Your task to perform on an android device: open wifi settings Image 0: 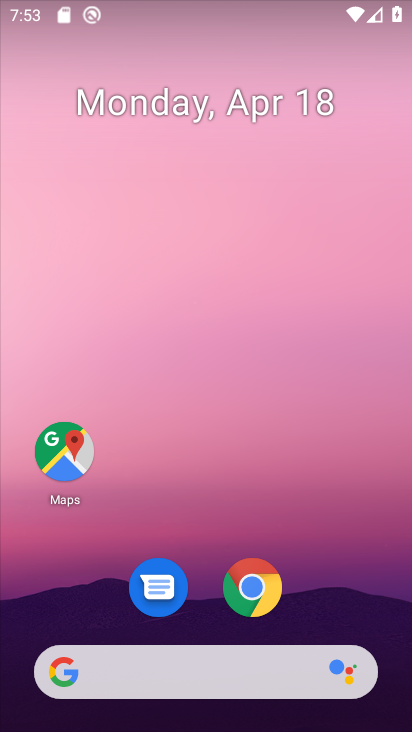
Step 0: drag from (207, 8) to (219, 488)
Your task to perform on an android device: open wifi settings Image 1: 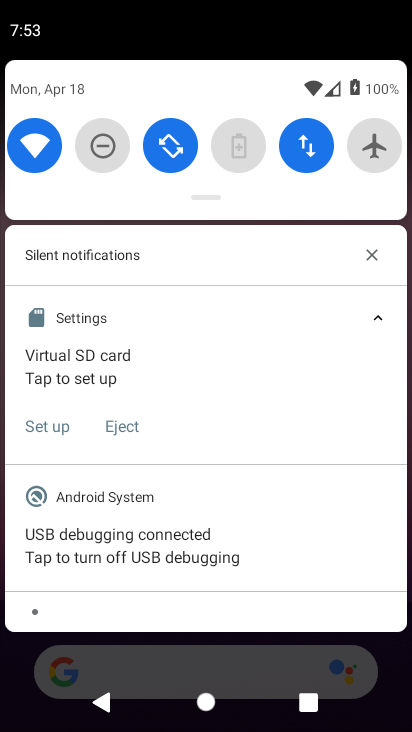
Step 1: click (37, 154)
Your task to perform on an android device: open wifi settings Image 2: 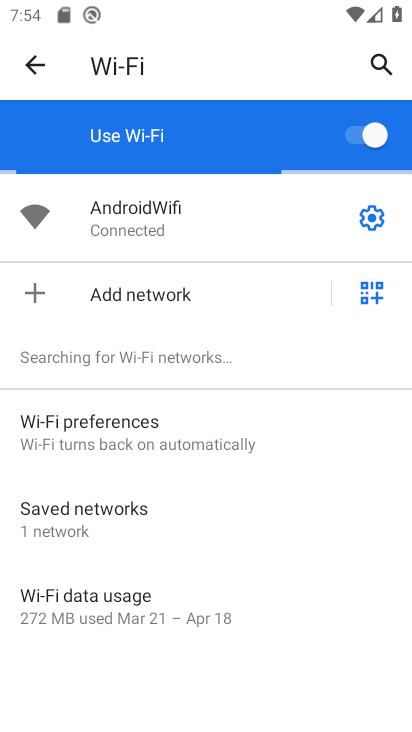
Step 2: task complete